Your task to perform on an android device: Go to Amazon Image 0: 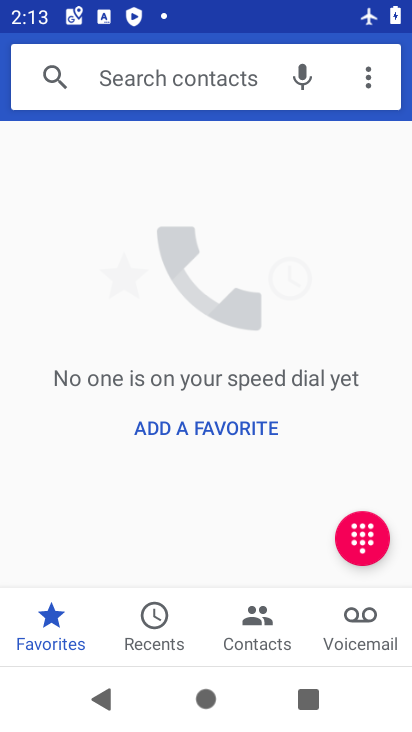
Step 0: press home button
Your task to perform on an android device: Go to Amazon Image 1: 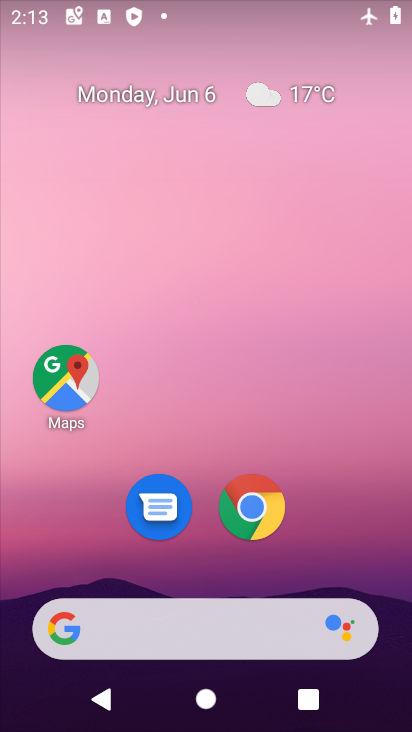
Step 1: drag from (311, 542) to (317, 30)
Your task to perform on an android device: Go to Amazon Image 2: 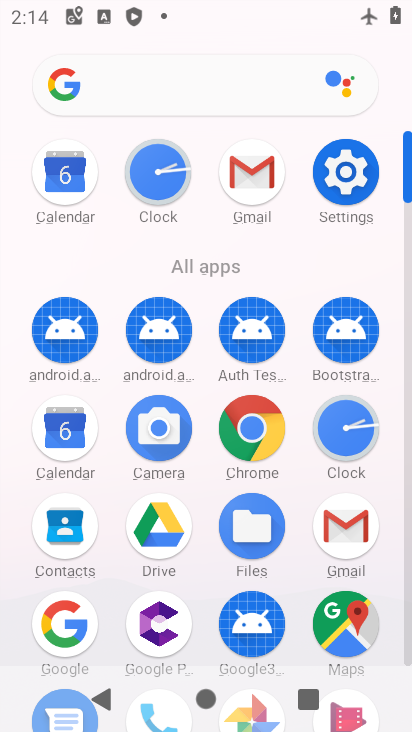
Step 2: click (256, 432)
Your task to perform on an android device: Go to Amazon Image 3: 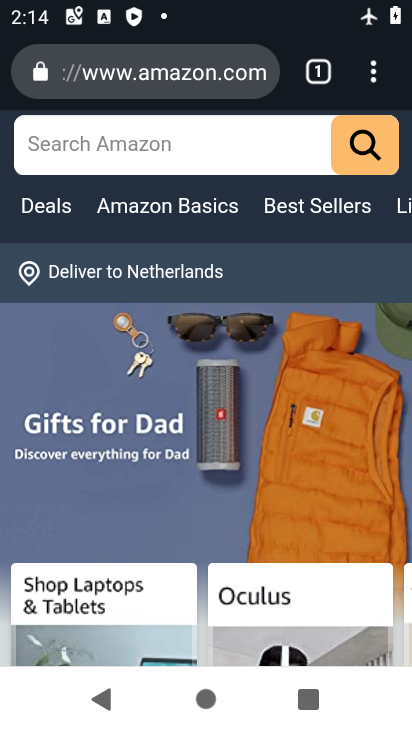
Step 3: task complete